Your task to perform on an android device: Open the web browser Image 0: 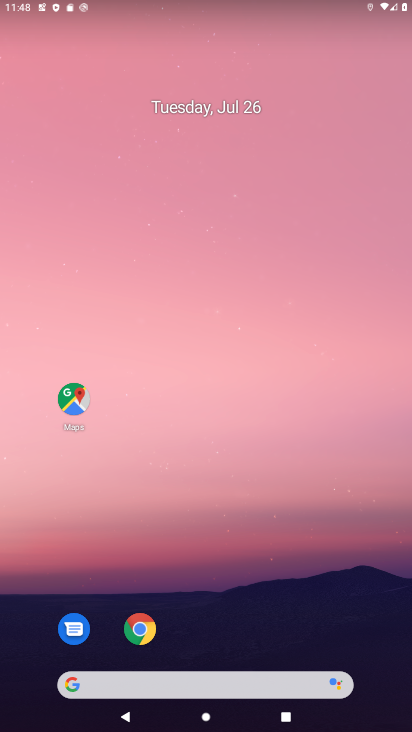
Step 0: click (139, 635)
Your task to perform on an android device: Open the web browser Image 1: 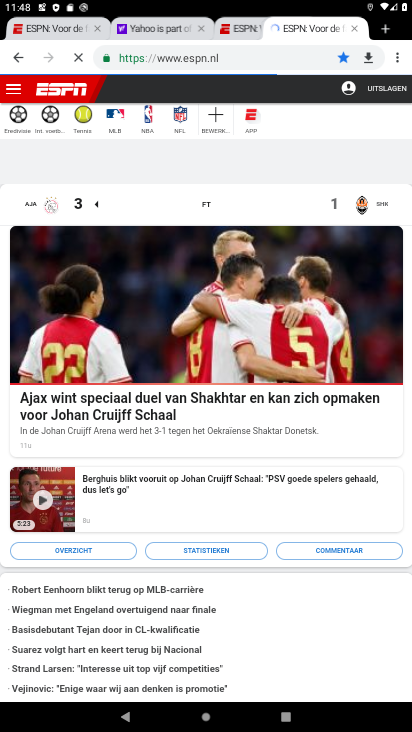
Step 1: task complete